Your task to perform on an android device: turn off wifi Image 0: 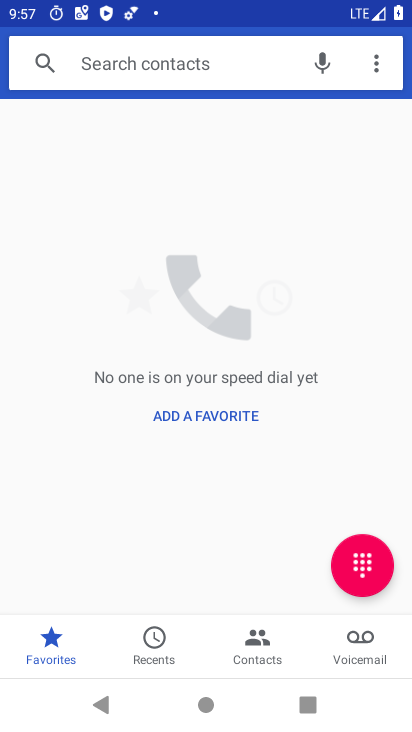
Step 0: press home button
Your task to perform on an android device: turn off wifi Image 1: 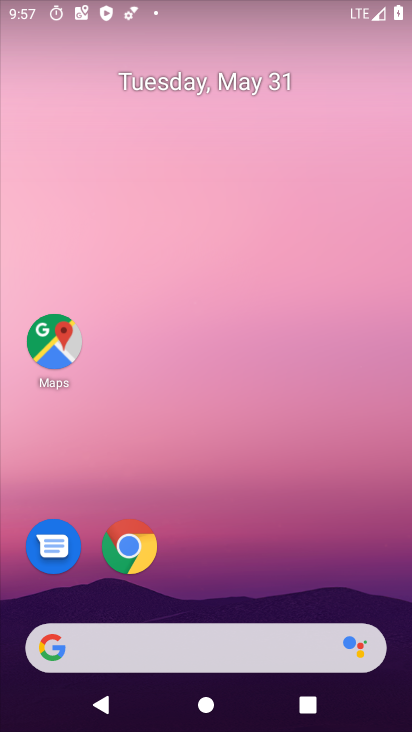
Step 1: drag from (267, 554) to (130, 290)
Your task to perform on an android device: turn off wifi Image 2: 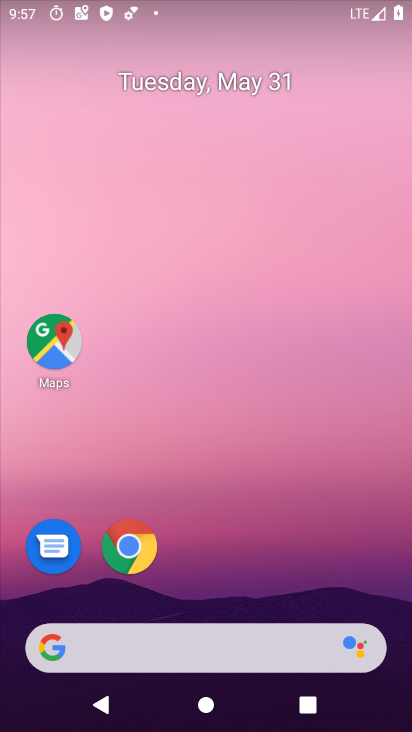
Step 2: drag from (260, 484) to (273, 6)
Your task to perform on an android device: turn off wifi Image 3: 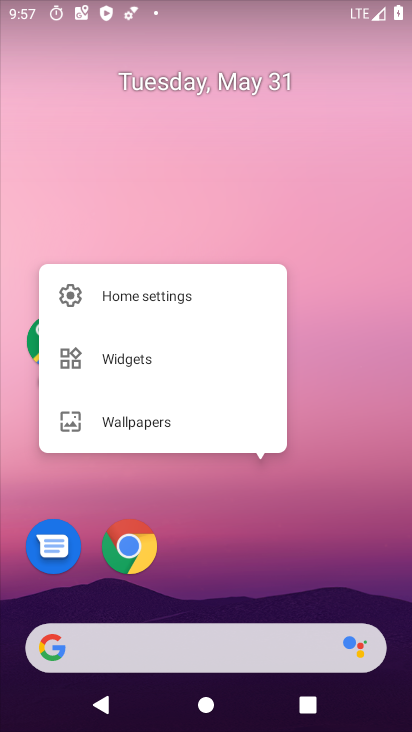
Step 3: click (334, 313)
Your task to perform on an android device: turn off wifi Image 4: 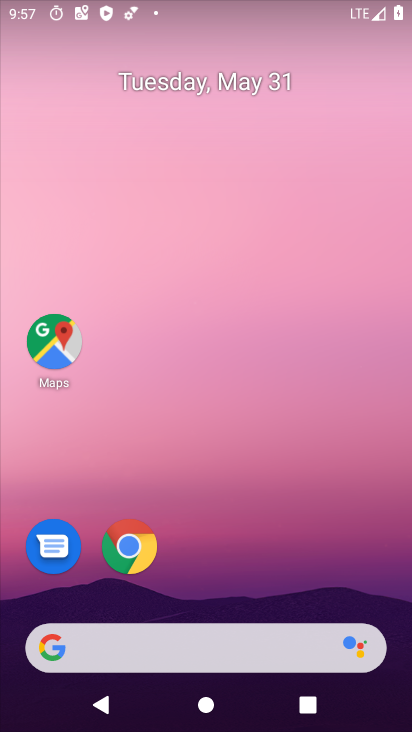
Step 4: drag from (296, 577) to (299, 136)
Your task to perform on an android device: turn off wifi Image 5: 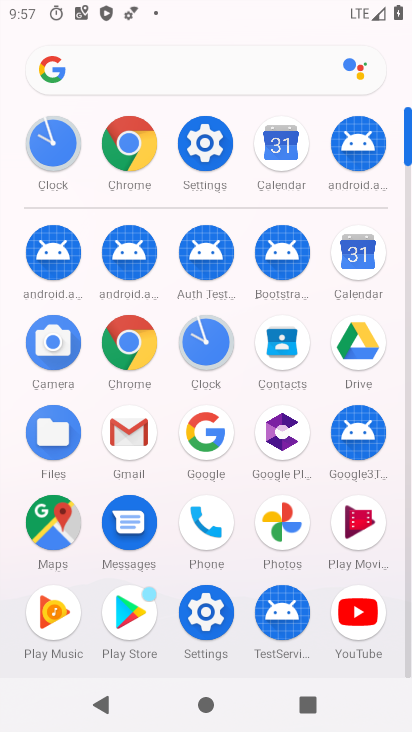
Step 5: click (201, 132)
Your task to perform on an android device: turn off wifi Image 6: 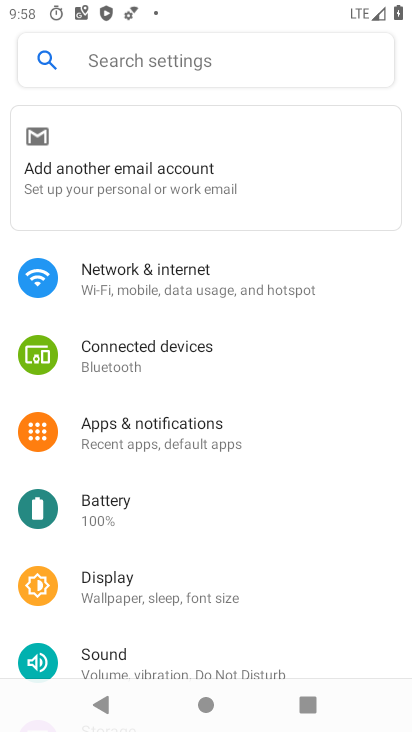
Step 6: click (183, 262)
Your task to perform on an android device: turn off wifi Image 7: 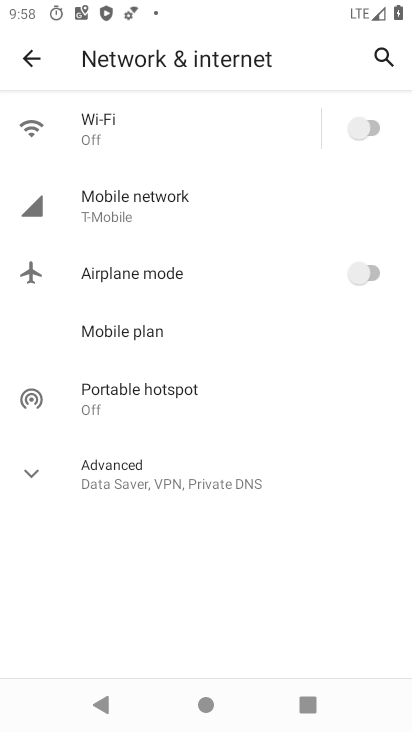
Step 7: task complete